Your task to perform on an android device: Show me the alarms in the clock app Image 0: 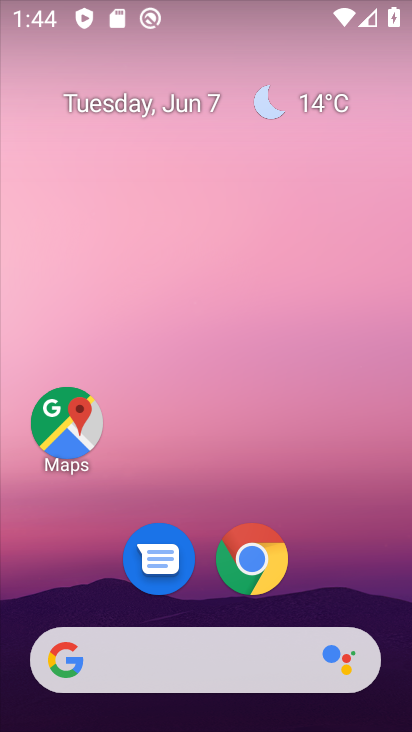
Step 0: drag from (354, 492) to (289, 32)
Your task to perform on an android device: Show me the alarms in the clock app Image 1: 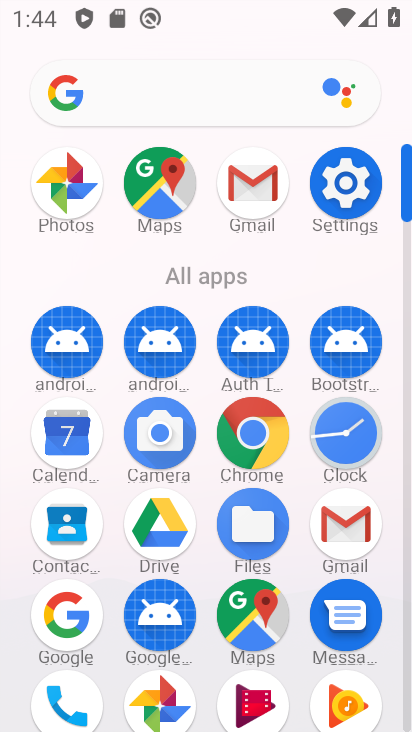
Step 1: click (343, 435)
Your task to perform on an android device: Show me the alarms in the clock app Image 2: 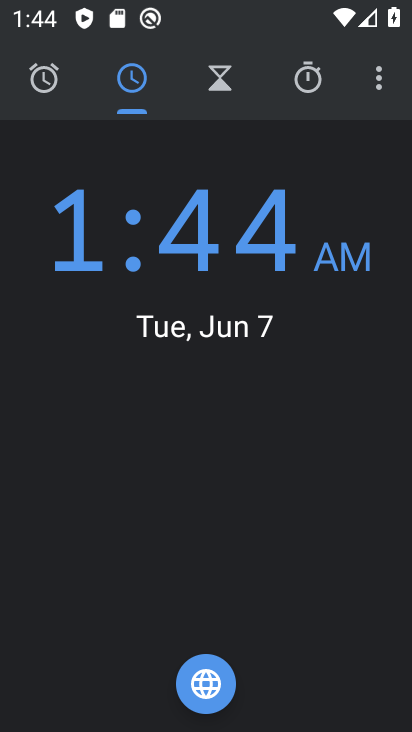
Step 2: click (44, 80)
Your task to perform on an android device: Show me the alarms in the clock app Image 3: 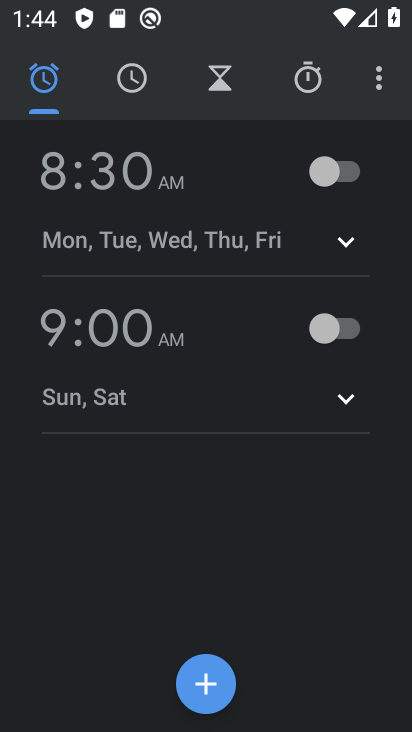
Step 3: click (205, 679)
Your task to perform on an android device: Show me the alarms in the clock app Image 4: 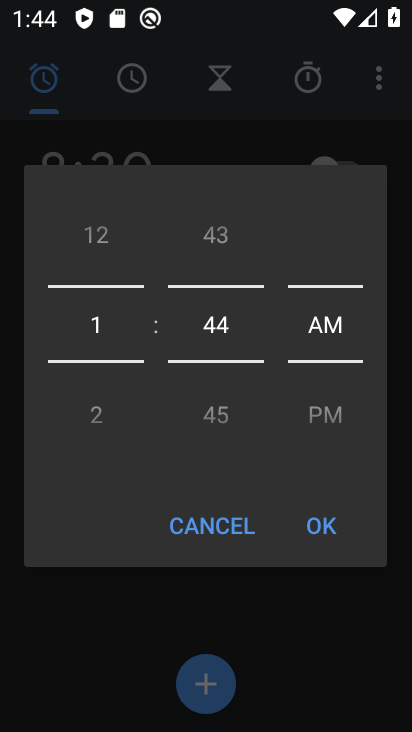
Step 4: click (100, 248)
Your task to perform on an android device: Show me the alarms in the clock app Image 5: 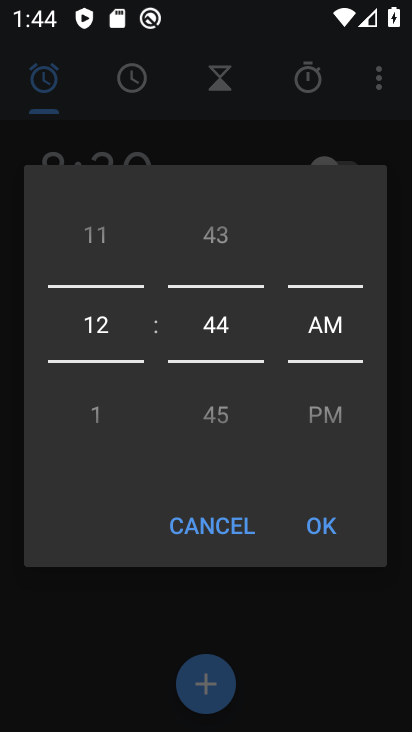
Step 5: click (100, 248)
Your task to perform on an android device: Show me the alarms in the clock app Image 6: 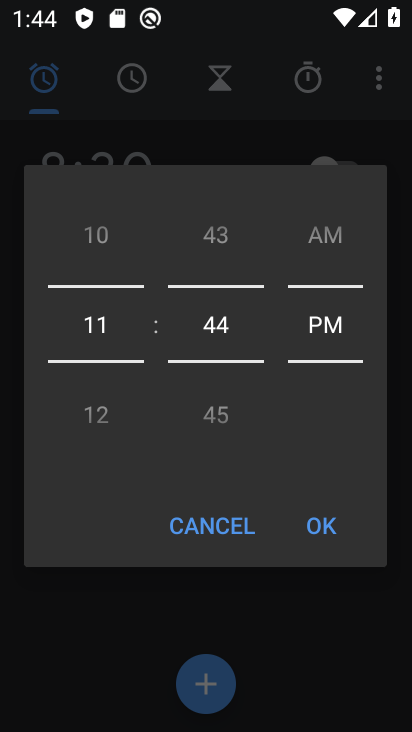
Step 6: click (100, 248)
Your task to perform on an android device: Show me the alarms in the clock app Image 7: 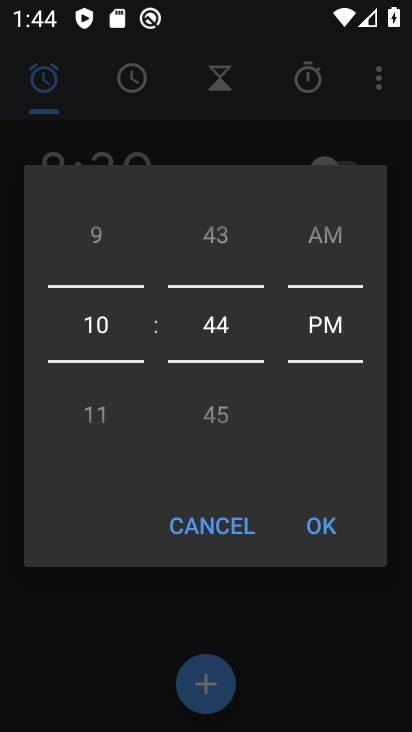
Step 7: click (100, 248)
Your task to perform on an android device: Show me the alarms in the clock app Image 8: 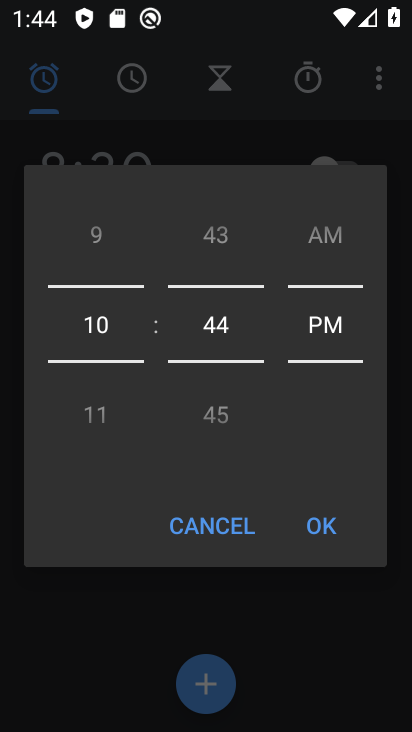
Step 8: click (230, 247)
Your task to perform on an android device: Show me the alarms in the clock app Image 9: 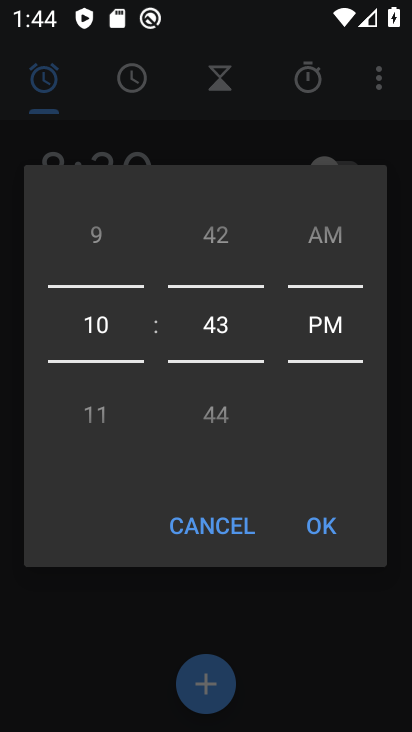
Step 9: click (230, 247)
Your task to perform on an android device: Show me the alarms in the clock app Image 10: 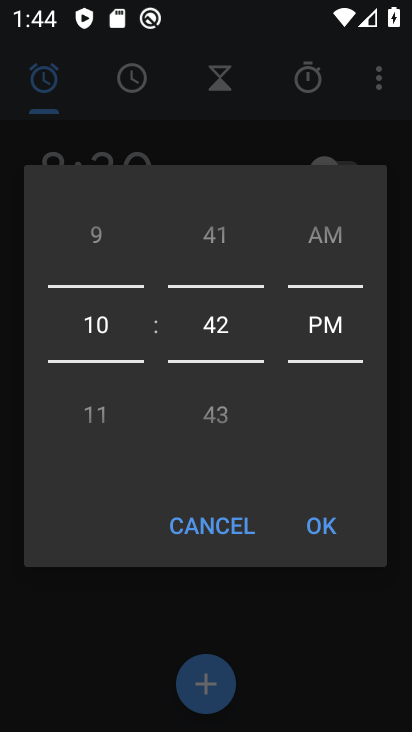
Step 10: click (324, 241)
Your task to perform on an android device: Show me the alarms in the clock app Image 11: 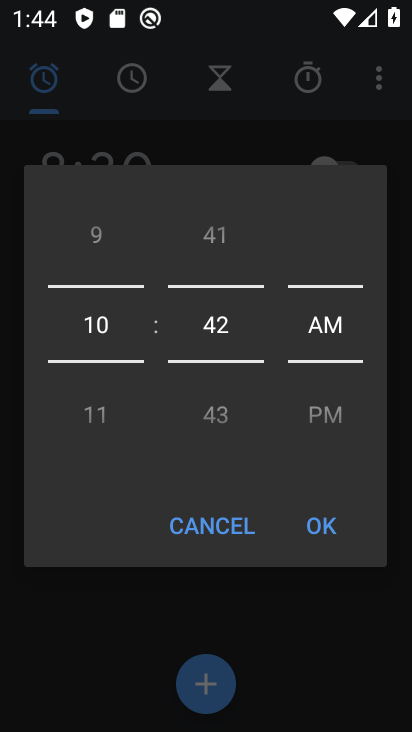
Step 11: click (329, 531)
Your task to perform on an android device: Show me the alarms in the clock app Image 12: 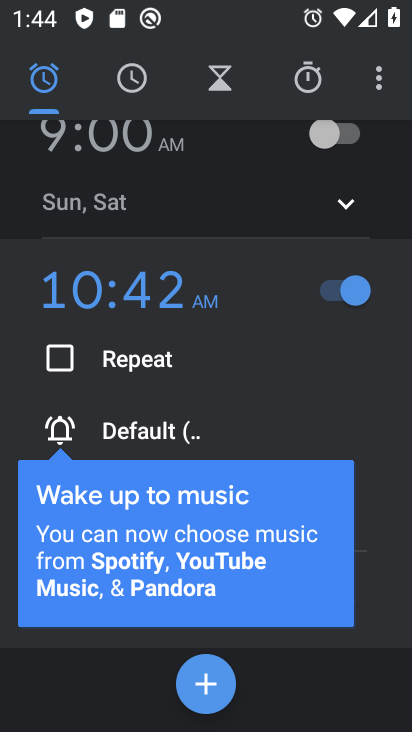
Step 12: click (293, 259)
Your task to perform on an android device: Show me the alarms in the clock app Image 13: 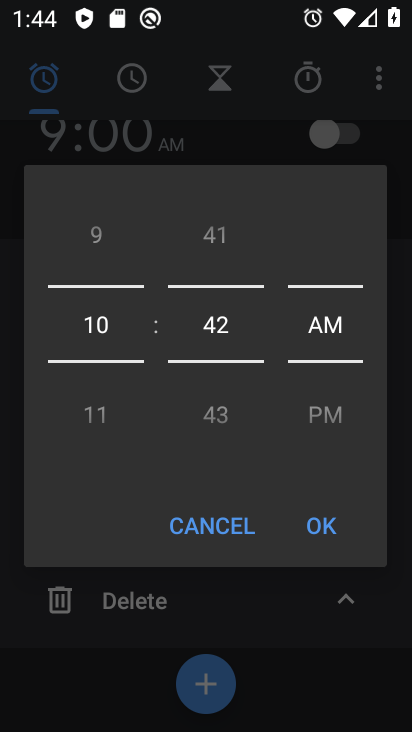
Step 13: click (325, 346)
Your task to perform on an android device: Show me the alarms in the clock app Image 14: 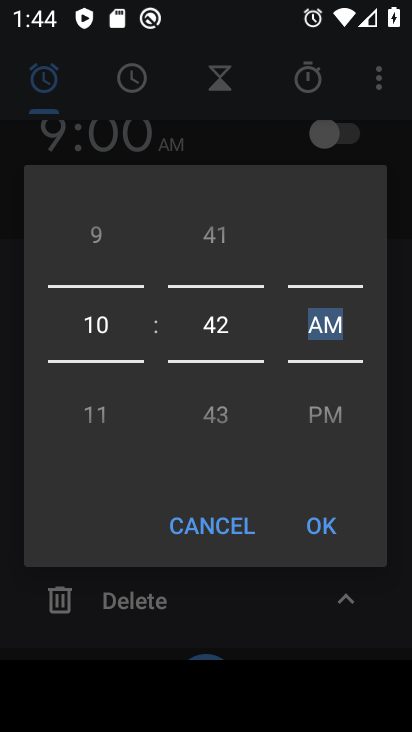
Step 14: click (323, 516)
Your task to perform on an android device: Show me the alarms in the clock app Image 15: 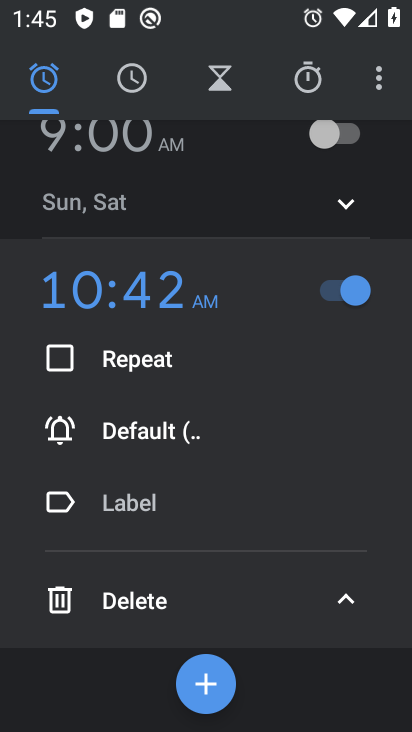
Step 15: click (346, 592)
Your task to perform on an android device: Show me the alarms in the clock app Image 16: 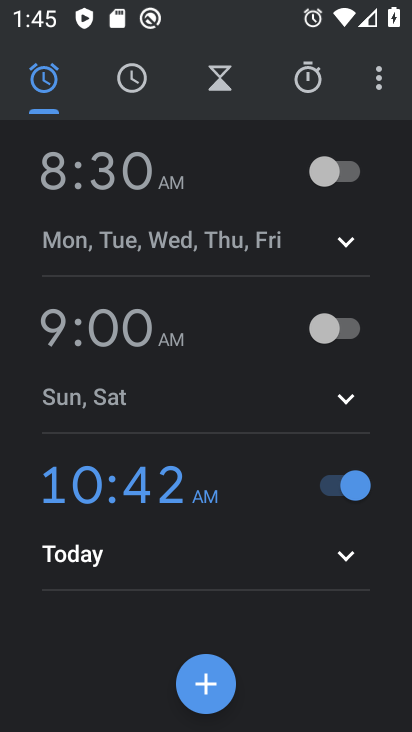
Step 16: task complete